Your task to perform on an android device: turn on wifi Image 0: 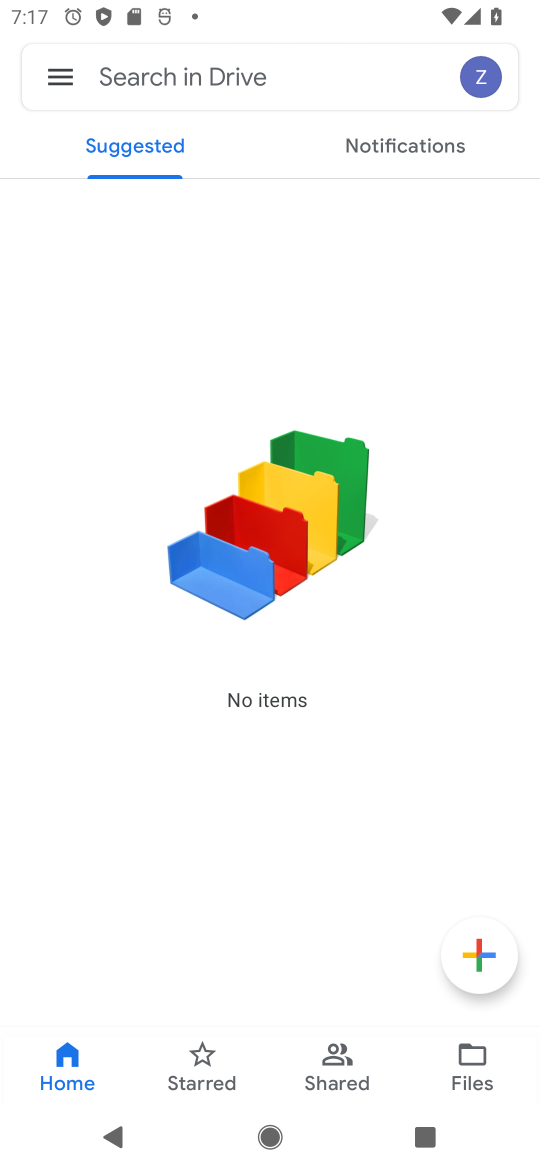
Step 0: press home button
Your task to perform on an android device: turn on wifi Image 1: 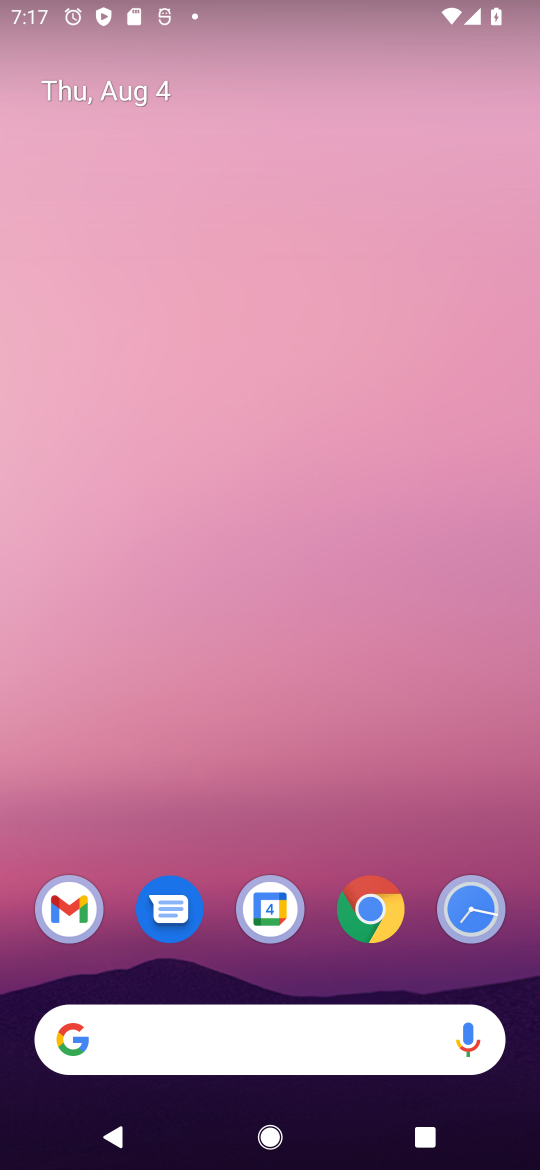
Step 1: drag from (268, 834) to (264, 90)
Your task to perform on an android device: turn on wifi Image 2: 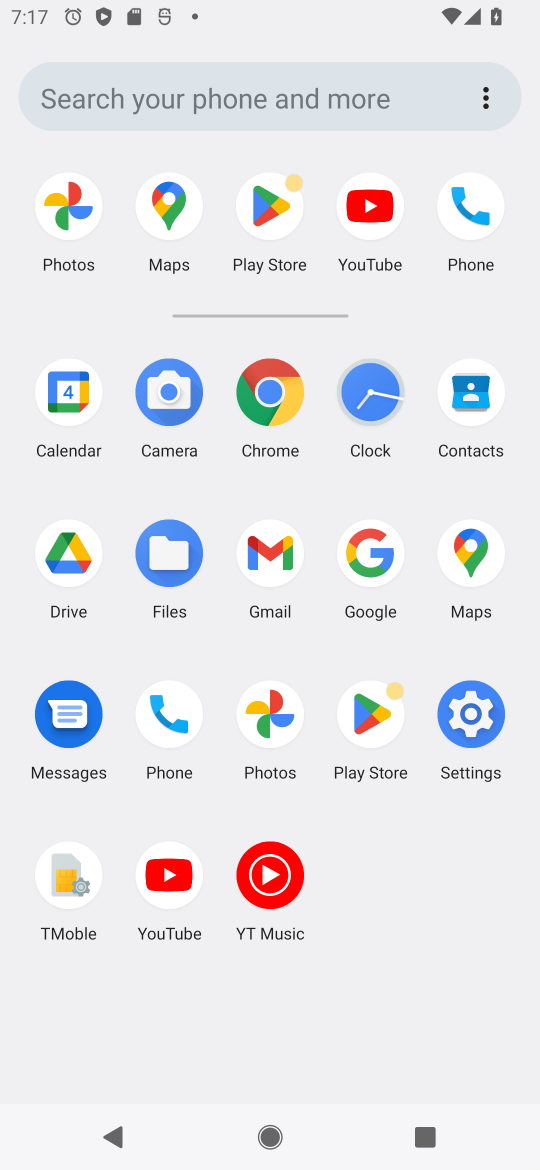
Step 2: click (472, 723)
Your task to perform on an android device: turn on wifi Image 3: 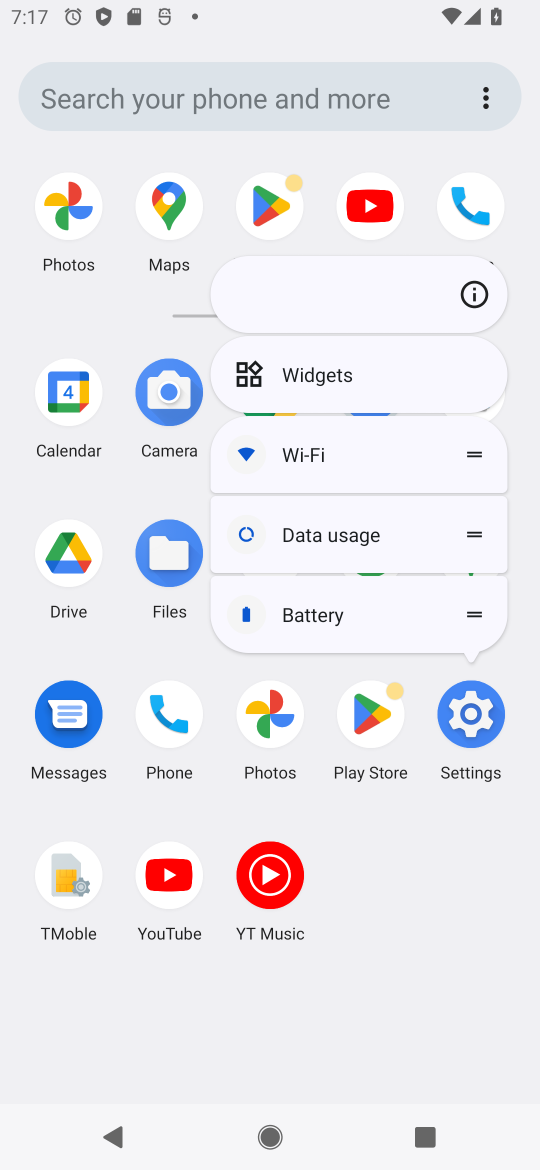
Step 3: click (459, 712)
Your task to perform on an android device: turn on wifi Image 4: 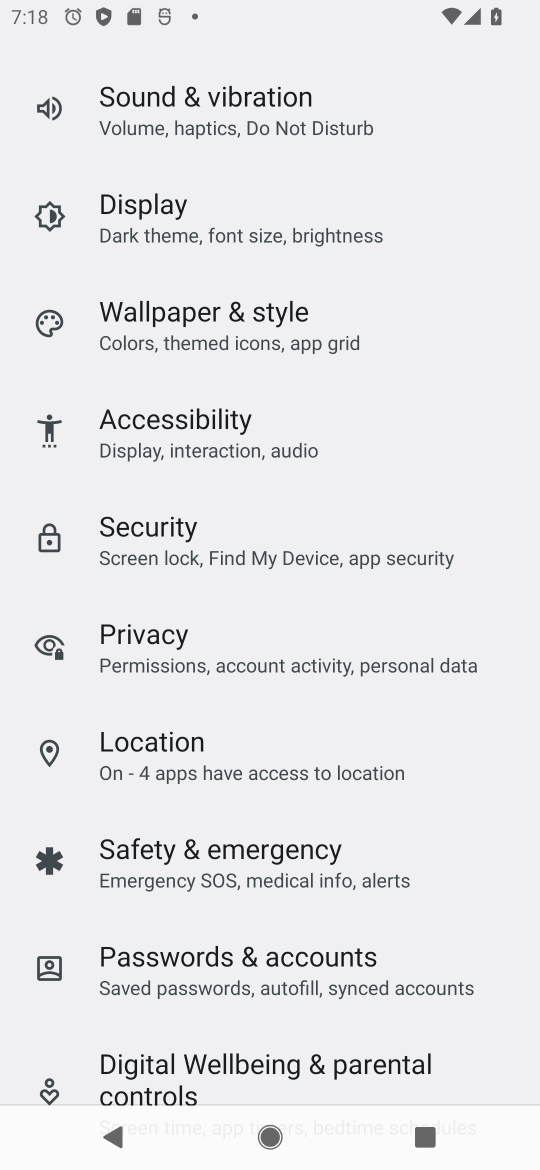
Step 4: drag from (216, 137) to (267, 764)
Your task to perform on an android device: turn on wifi Image 5: 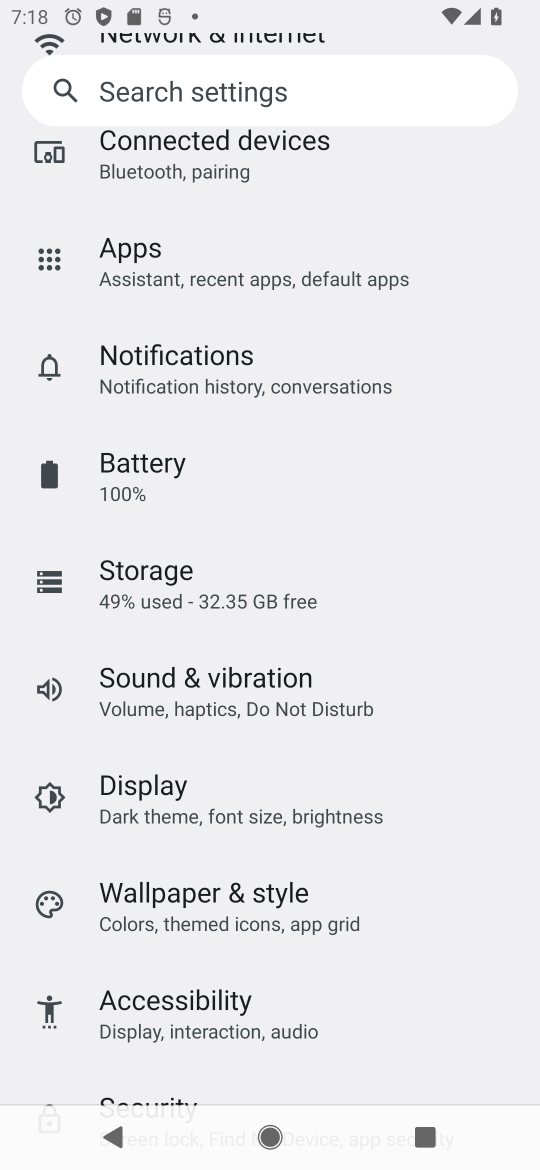
Step 5: drag from (159, 228) to (203, 819)
Your task to perform on an android device: turn on wifi Image 6: 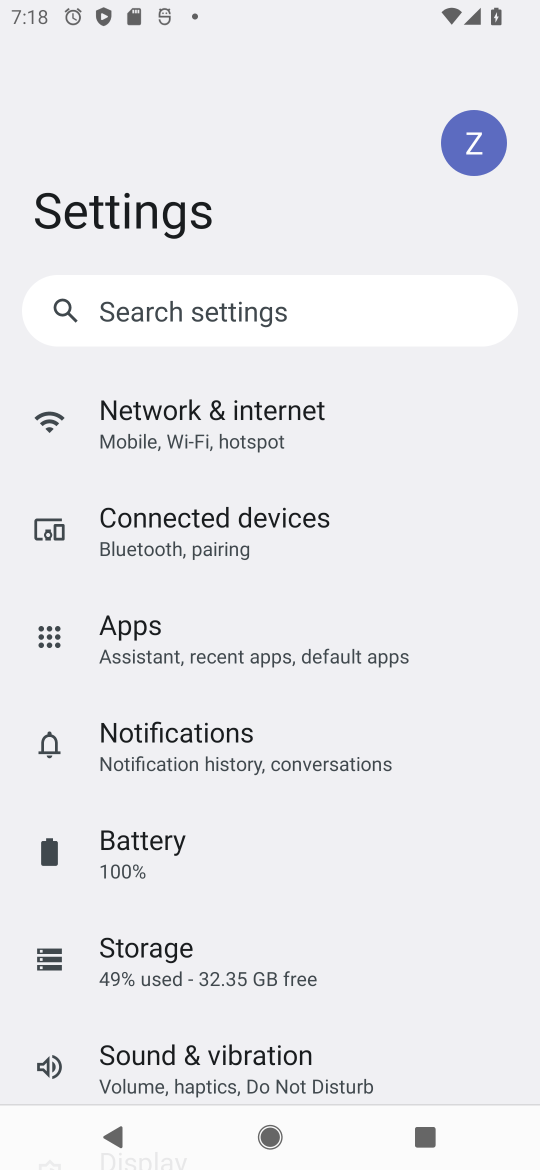
Step 6: click (114, 419)
Your task to perform on an android device: turn on wifi Image 7: 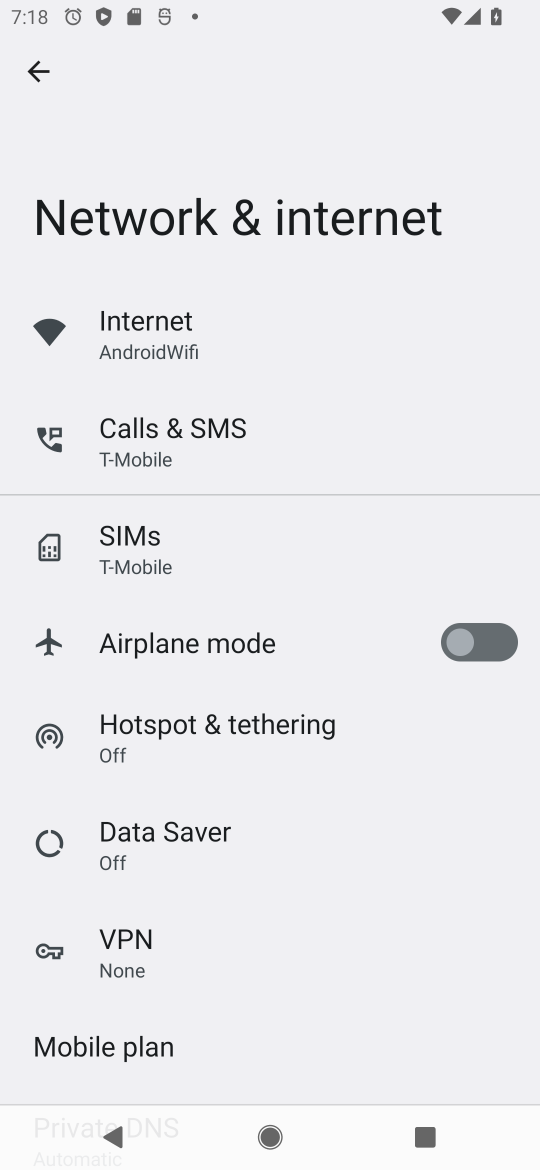
Step 7: click (67, 327)
Your task to perform on an android device: turn on wifi Image 8: 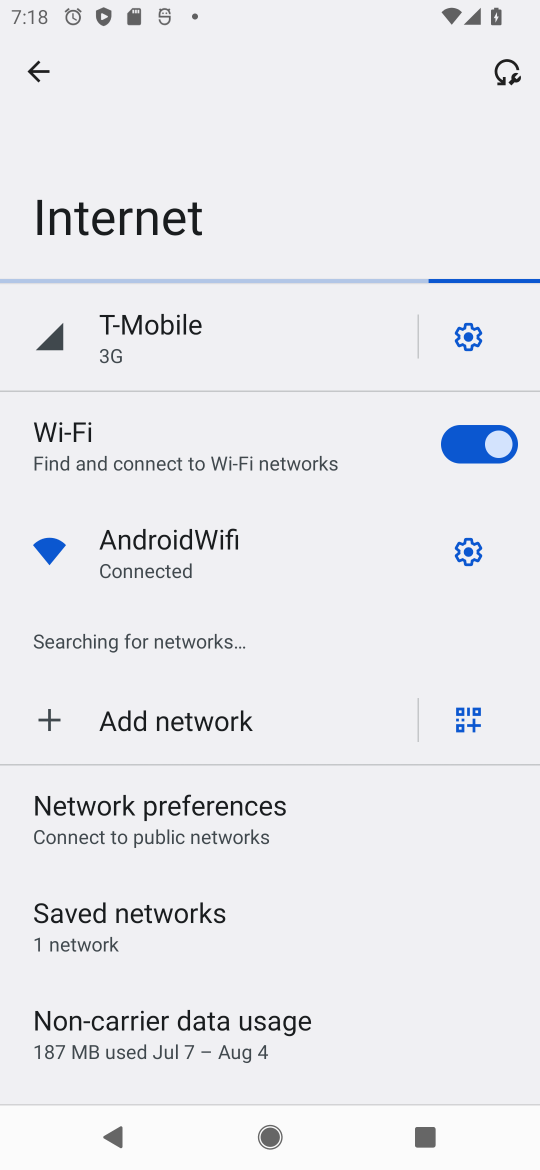
Step 8: click (59, 448)
Your task to perform on an android device: turn on wifi Image 9: 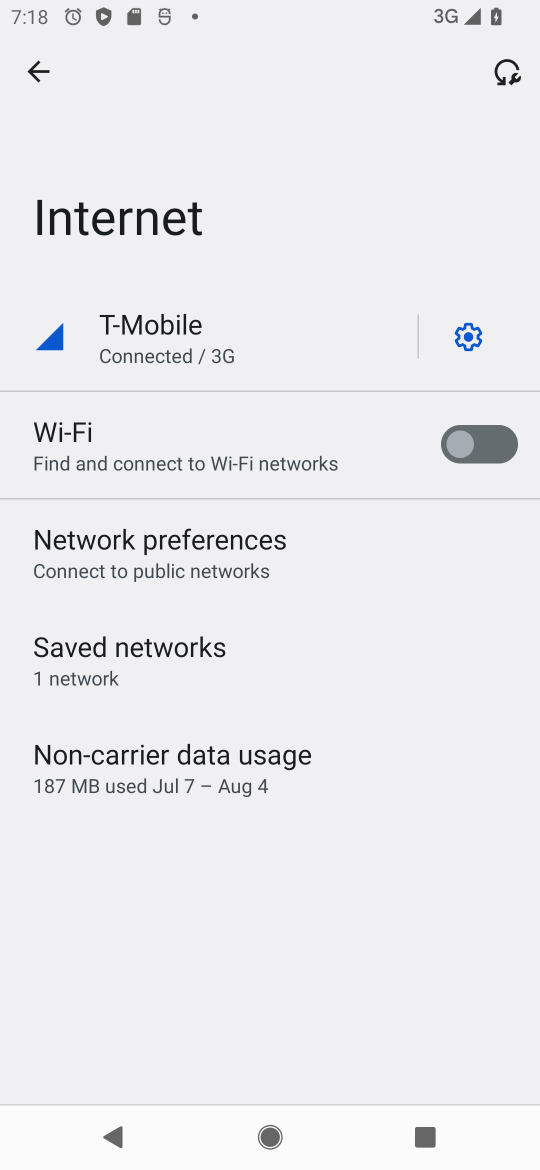
Step 9: click (59, 448)
Your task to perform on an android device: turn on wifi Image 10: 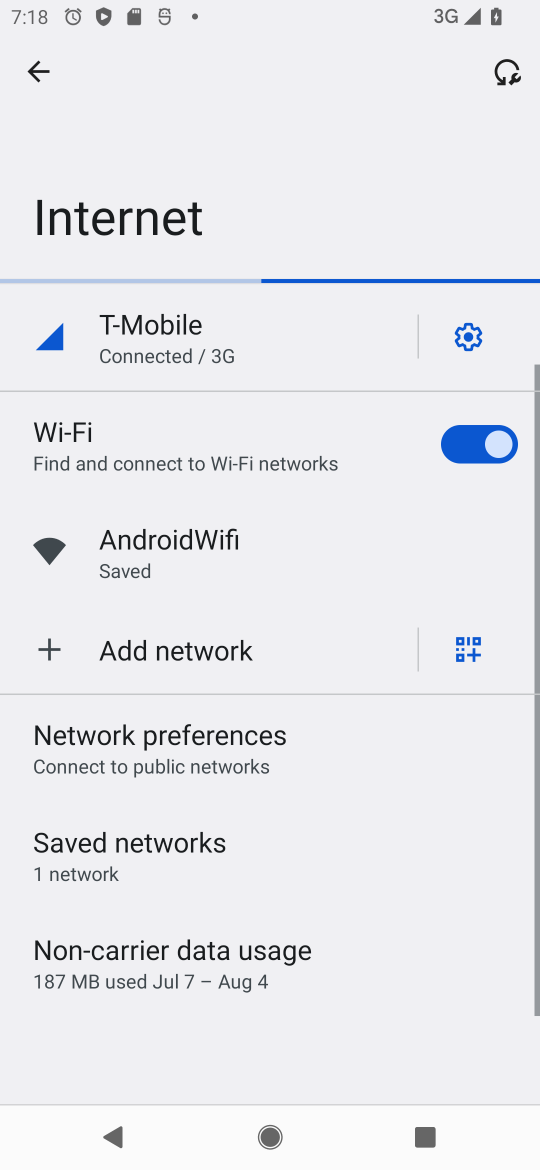
Step 10: task complete